Your task to perform on an android device: Go to calendar. Show me events next week Image 0: 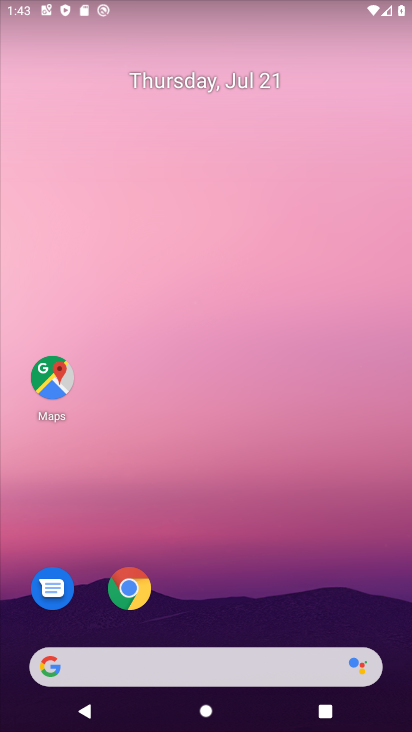
Step 0: drag from (195, 600) to (175, 59)
Your task to perform on an android device: Go to calendar. Show me events next week Image 1: 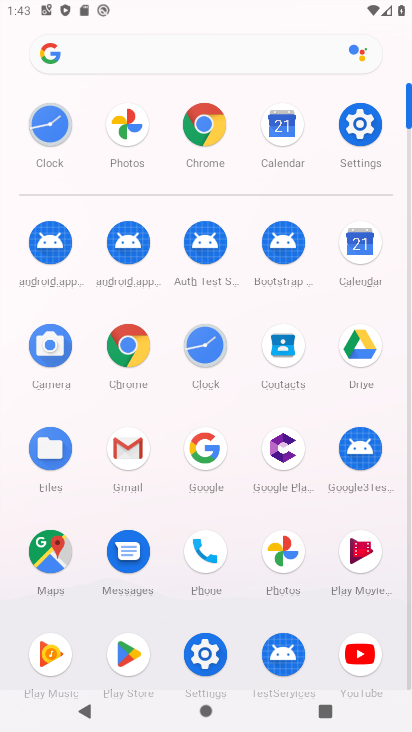
Step 1: click (292, 116)
Your task to perform on an android device: Go to calendar. Show me events next week Image 2: 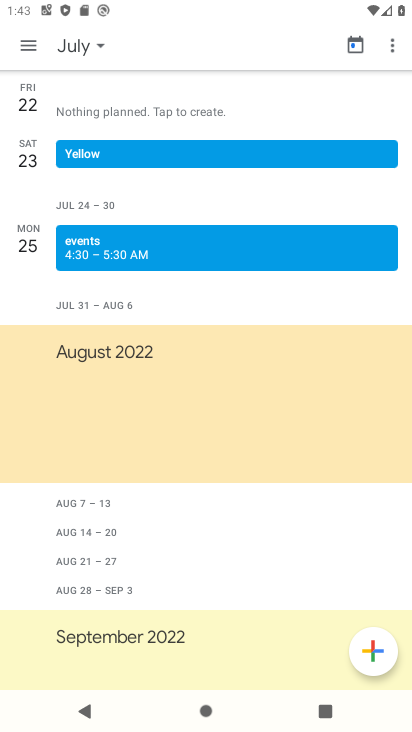
Step 2: click (33, 41)
Your task to perform on an android device: Go to calendar. Show me events next week Image 3: 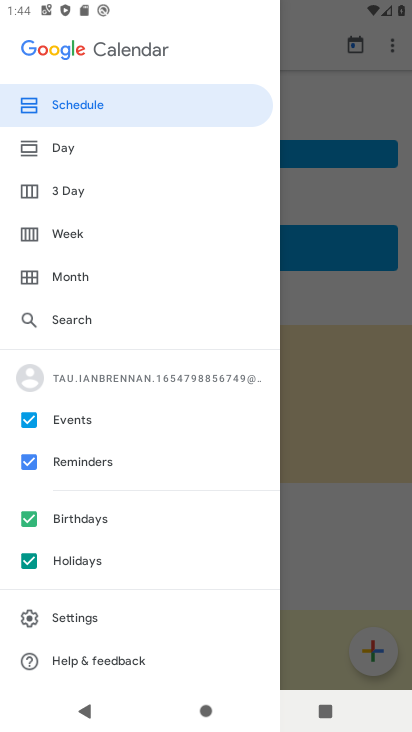
Step 3: click (63, 237)
Your task to perform on an android device: Go to calendar. Show me events next week Image 4: 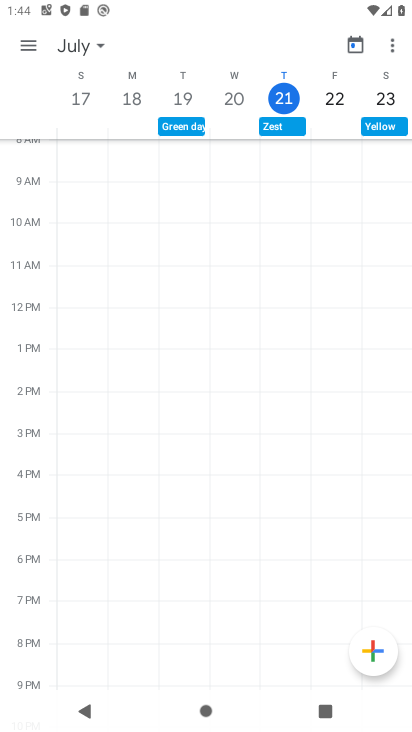
Step 4: task complete